Your task to perform on an android device: Go to location settings Image 0: 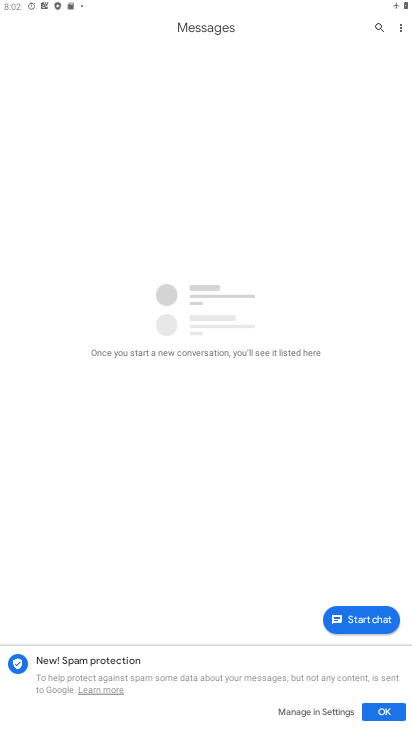
Step 0: press home button
Your task to perform on an android device: Go to location settings Image 1: 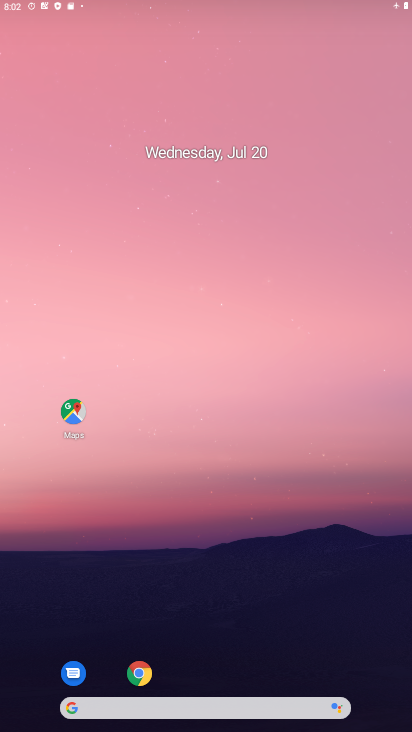
Step 1: drag from (395, 658) to (276, 82)
Your task to perform on an android device: Go to location settings Image 2: 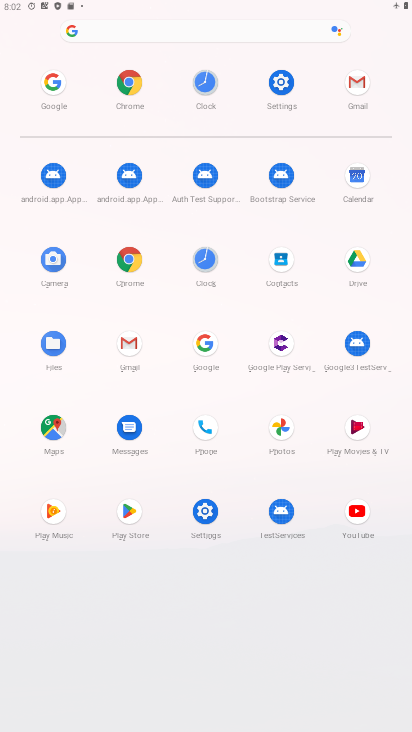
Step 2: click (201, 523)
Your task to perform on an android device: Go to location settings Image 3: 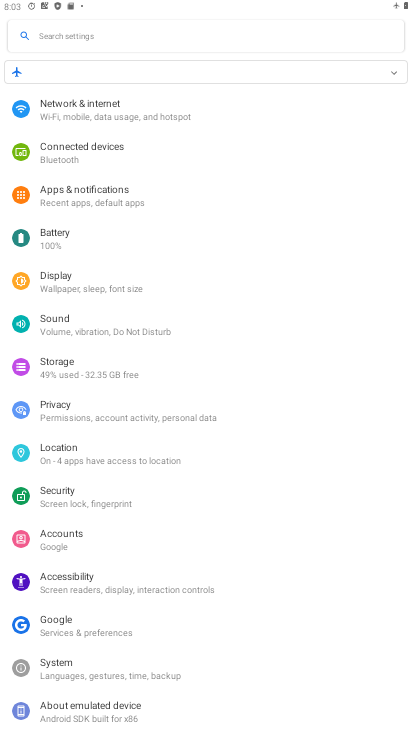
Step 3: click (78, 455)
Your task to perform on an android device: Go to location settings Image 4: 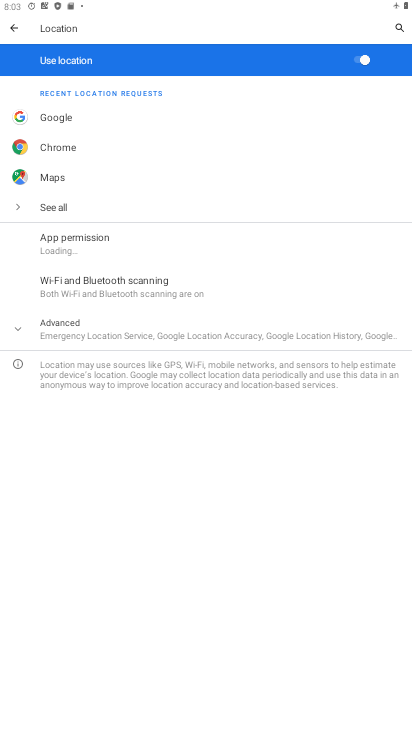
Step 4: task complete